Your task to perform on an android device: What's the weather going to be tomorrow? Image 0: 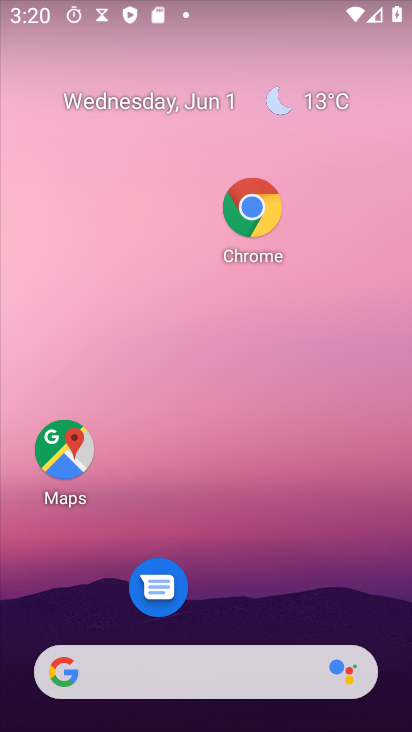
Step 0: drag from (204, 568) to (132, 67)
Your task to perform on an android device: What's the weather going to be tomorrow? Image 1: 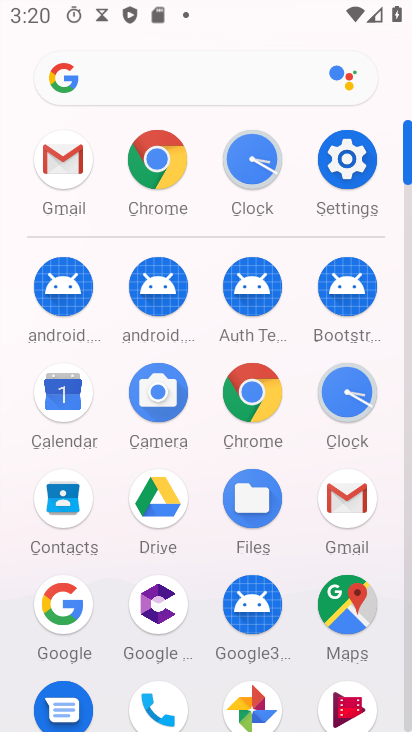
Step 1: press back button
Your task to perform on an android device: What's the weather going to be tomorrow? Image 2: 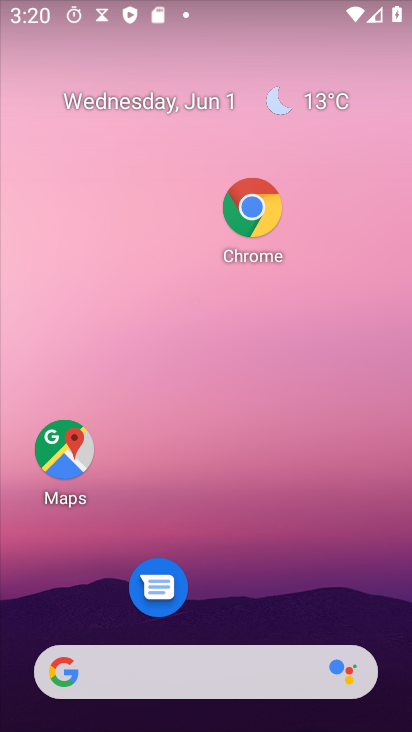
Step 2: drag from (15, 191) to (406, 541)
Your task to perform on an android device: What's the weather going to be tomorrow? Image 3: 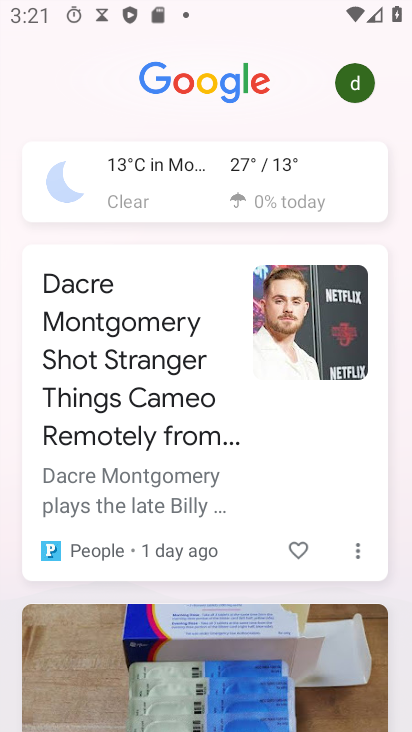
Step 3: drag from (94, 375) to (408, 420)
Your task to perform on an android device: What's the weather going to be tomorrow? Image 4: 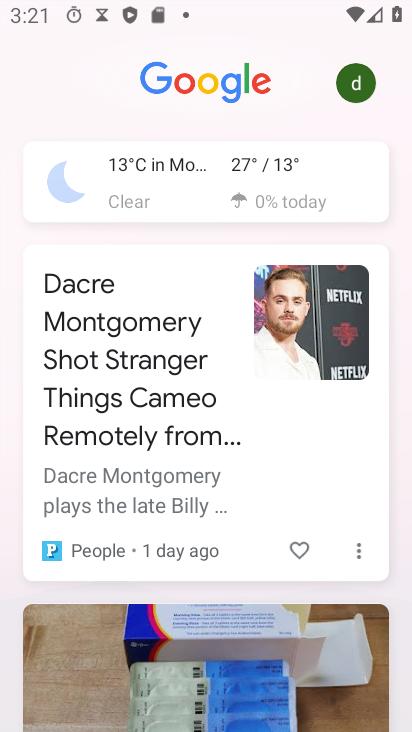
Step 4: click (150, 171)
Your task to perform on an android device: What's the weather going to be tomorrow? Image 5: 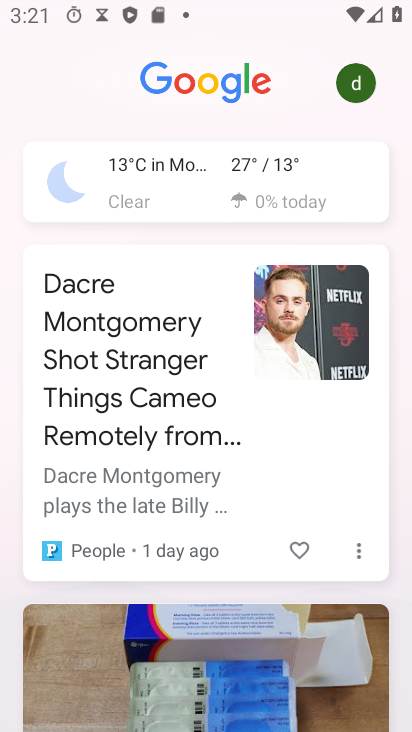
Step 5: click (150, 171)
Your task to perform on an android device: What's the weather going to be tomorrow? Image 6: 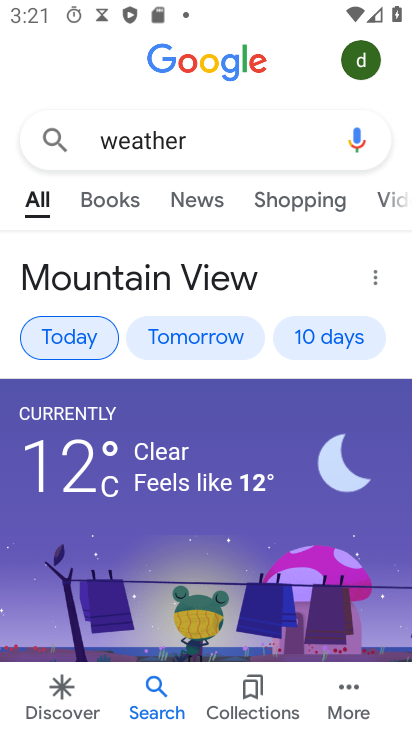
Step 6: task complete